Your task to perform on an android device: turn on airplane mode Image 0: 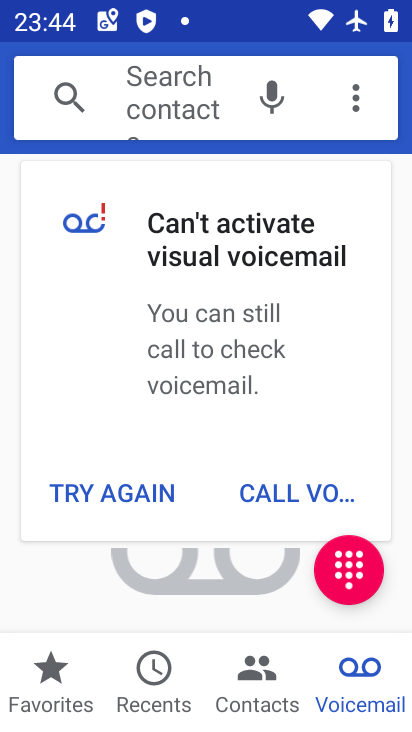
Step 0: task complete